Your task to perform on an android device: Open eBay Image 0: 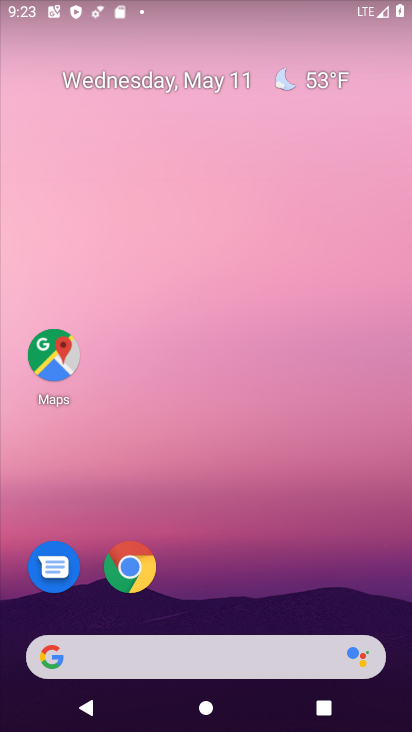
Step 0: click (270, 667)
Your task to perform on an android device: Open eBay Image 1: 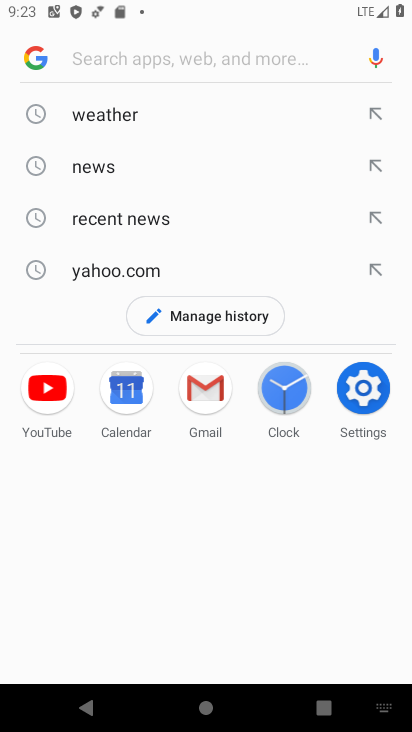
Step 1: type "ebay"
Your task to perform on an android device: Open eBay Image 2: 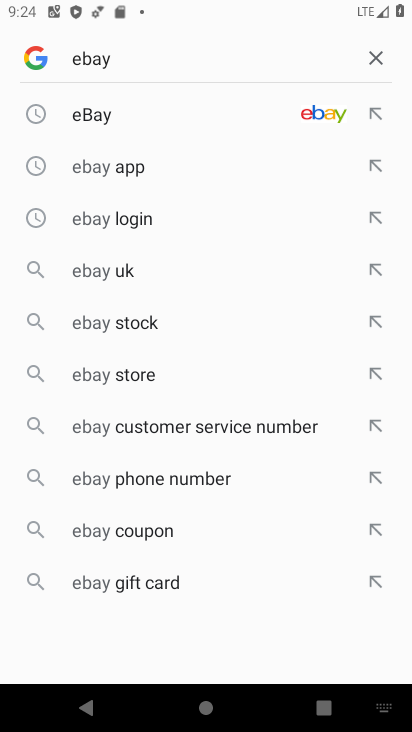
Step 2: click (325, 109)
Your task to perform on an android device: Open eBay Image 3: 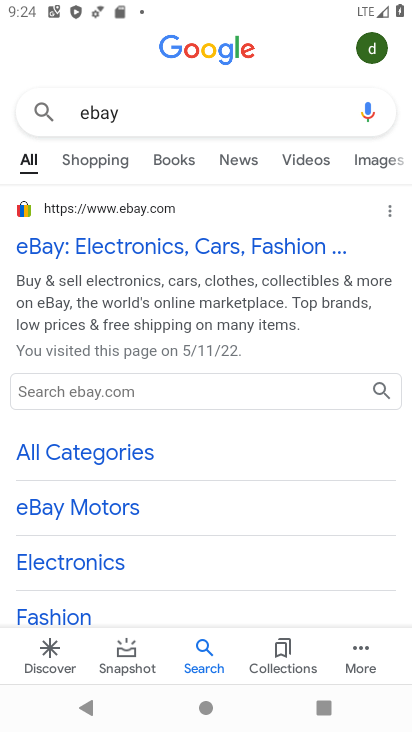
Step 3: click (141, 207)
Your task to perform on an android device: Open eBay Image 4: 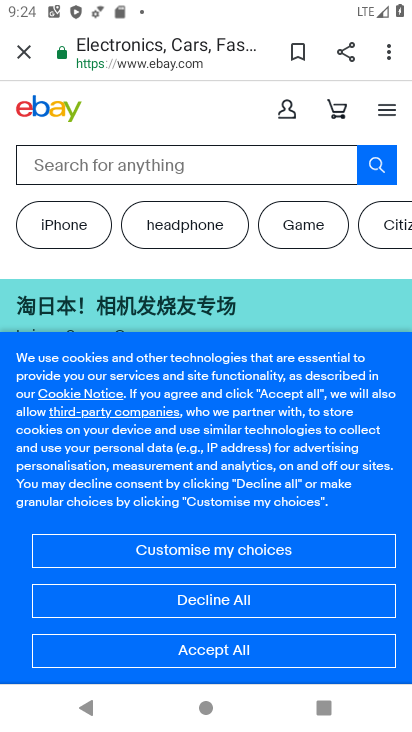
Step 4: task complete